Your task to perform on an android device: toggle show notifications on the lock screen Image 0: 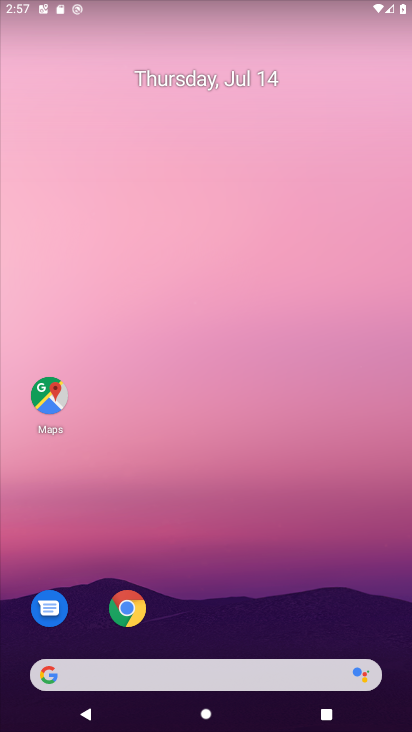
Step 0: drag from (258, 593) to (203, 45)
Your task to perform on an android device: toggle show notifications on the lock screen Image 1: 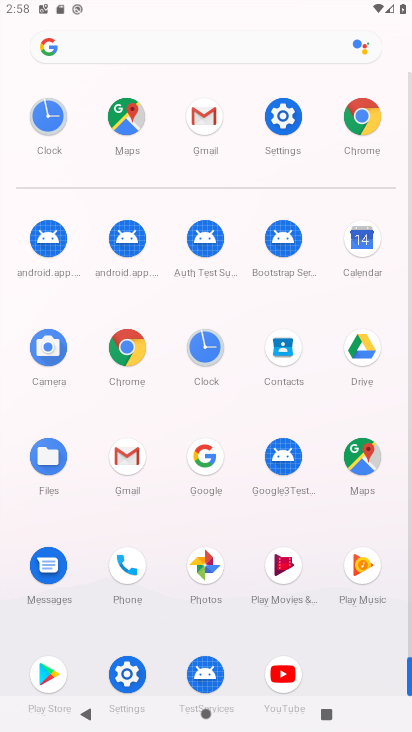
Step 1: click (298, 104)
Your task to perform on an android device: toggle show notifications on the lock screen Image 2: 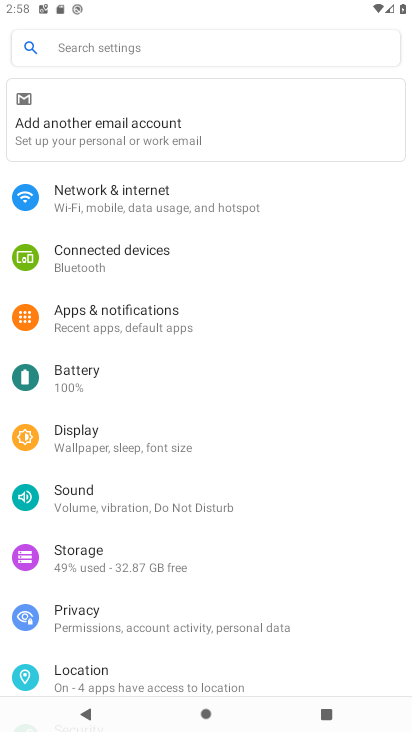
Step 2: click (116, 324)
Your task to perform on an android device: toggle show notifications on the lock screen Image 3: 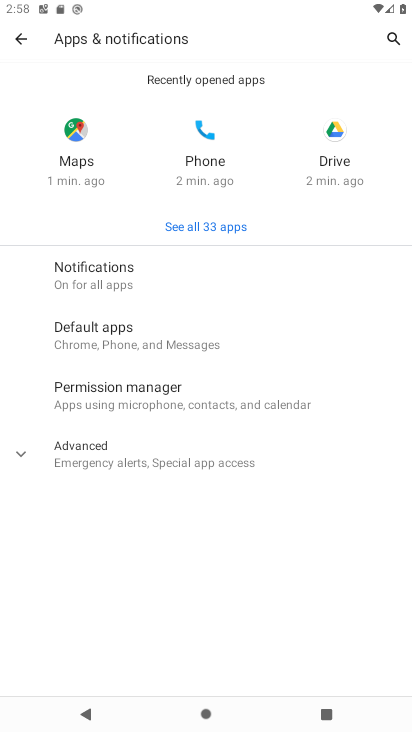
Step 3: click (109, 278)
Your task to perform on an android device: toggle show notifications on the lock screen Image 4: 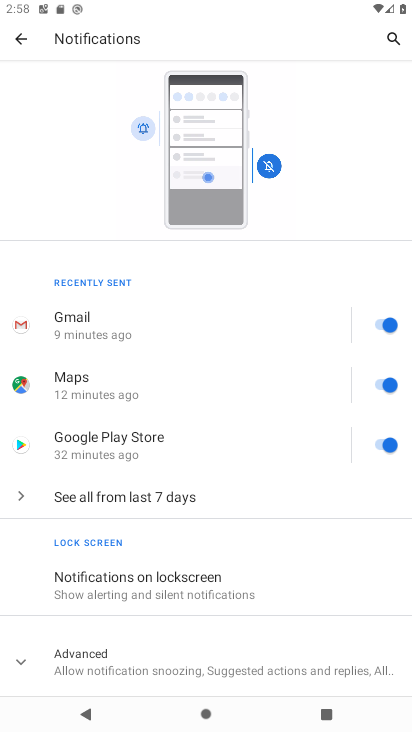
Step 4: click (94, 582)
Your task to perform on an android device: toggle show notifications on the lock screen Image 5: 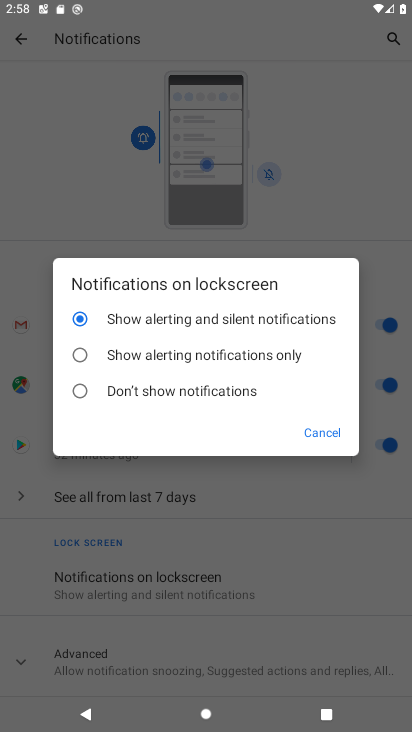
Step 5: click (87, 322)
Your task to perform on an android device: toggle show notifications on the lock screen Image 6: 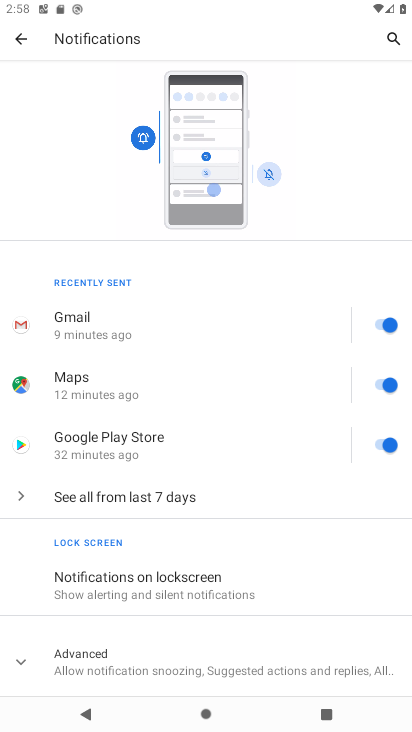
Step 6: task complete